Your task to perform on an android device: uninstall "Google Find My Device" Image 0: 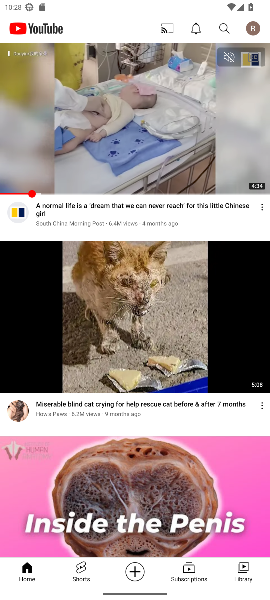
Step 0: click (224, 25)
Your task to perform on an android device: uninstall "Google Find My Device" Image 1: 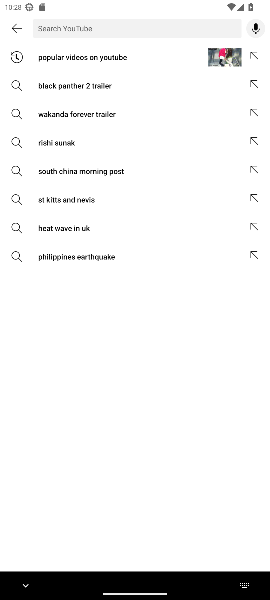
Step 1: click (113, 24)
Your task to perform on an android device: uninstall "Google Find My Device" Image 2: 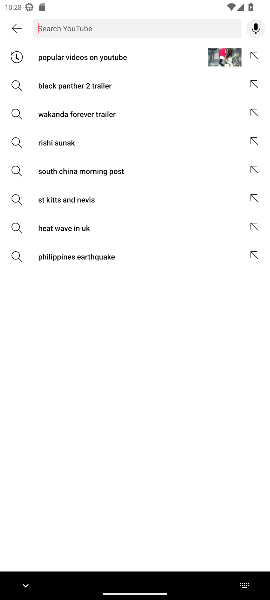
Step 2: press home button
Your task to perform on an android device: uninstall "Google Find My Device" Image 3: 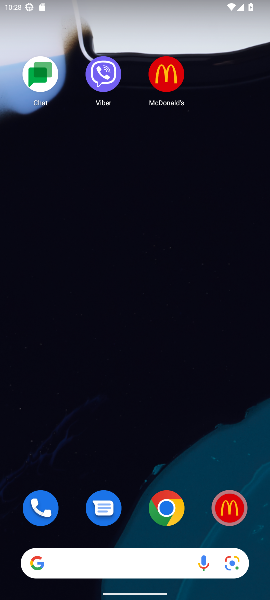
Step 3: drag from (160, 550) to (238, 8)
Your task to perform on an android device: uninstall "Google Find My Device" Image 4: 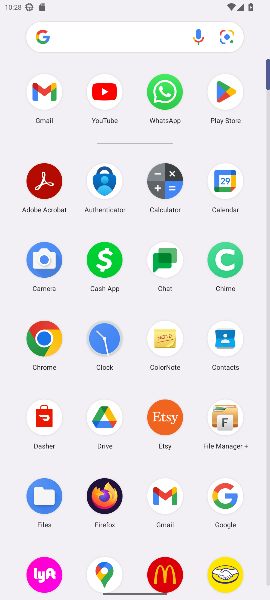
Step 4: click (222, 92)
Your task to perform on an android device: uninstall "Google Find My Device" Image 5: 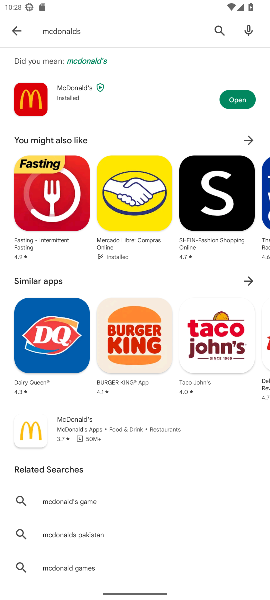
Step 5: click (217, 25)
Your task to perform on an android device: uninstall "Google Find My Device" Image 6: 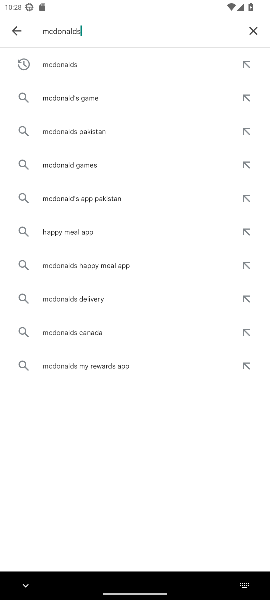
Step 6: click (251, 26)
Your task to perform on an android device: uninstall "Google Find My Device" Image 7: 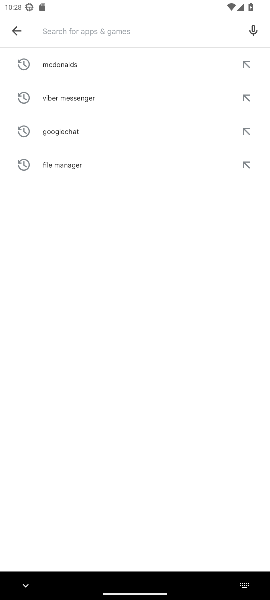
Step 7: type "Google find my device"
Your task to perform on an android device: uninstall "Google Find My Device" Image 8: 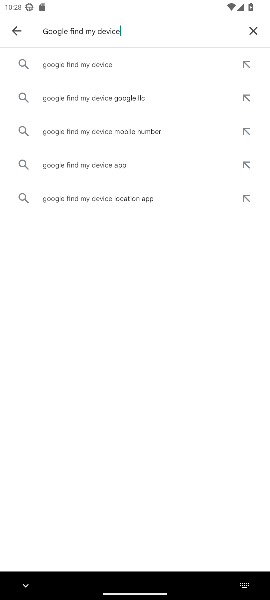
Step 8: click (124, 60)
Your task to perform on an android device: uninstall "Google Find My Device" Image 9: 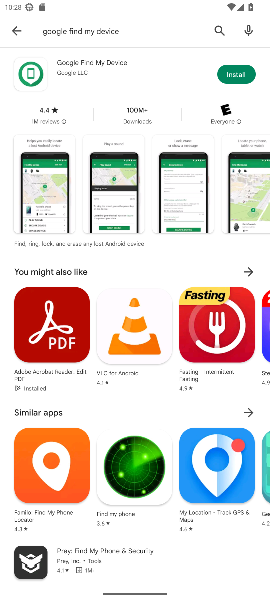
Step 9: task complete